Your task to perform on an android device: turn smart compose on in the gmail app Image 0: 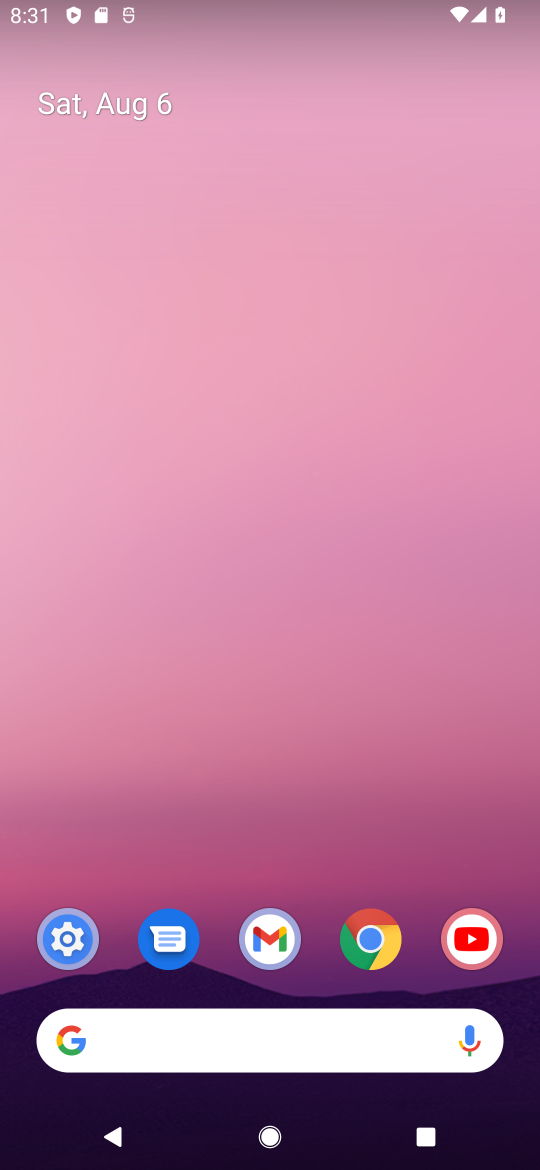
Step 0: drag from (282, 990) to (281, 320)
Your task to perform on an android device: turn smart compose on in the gmail app Image 1: 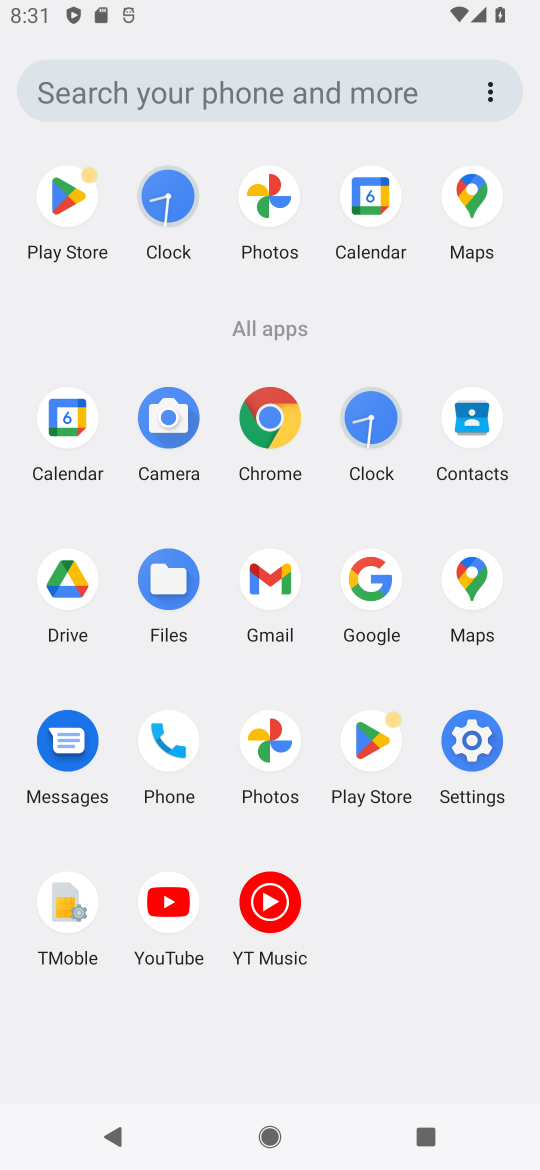
Step 1: click (278, 574)
Your task to perform on an android device: turn smart compose on in the gmail app Image 2: 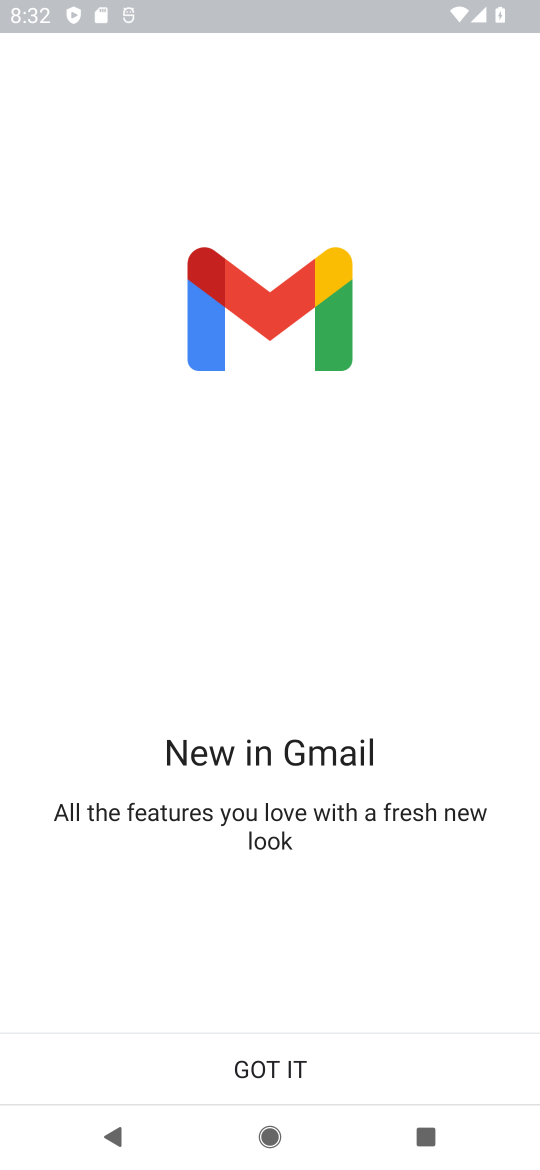
Step 2: click (301, 1067)
Your task to perform on an android device: turn smart compose on in the gmail app Image 3: 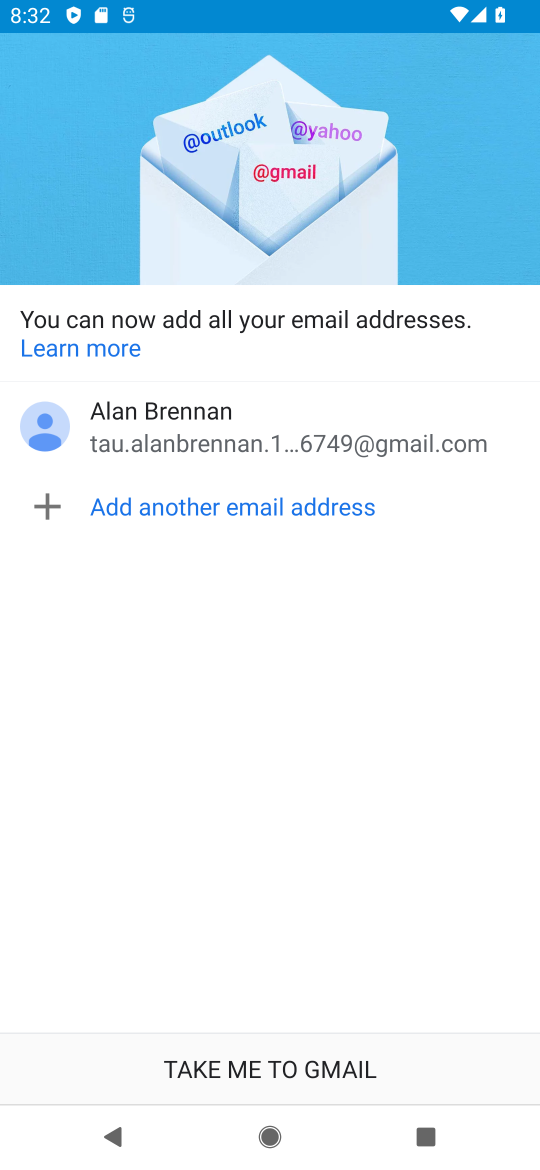
Step 3: click (225, 1064)
Your task to perform on an android device: turn smart compose on in the gmail app Image 4: 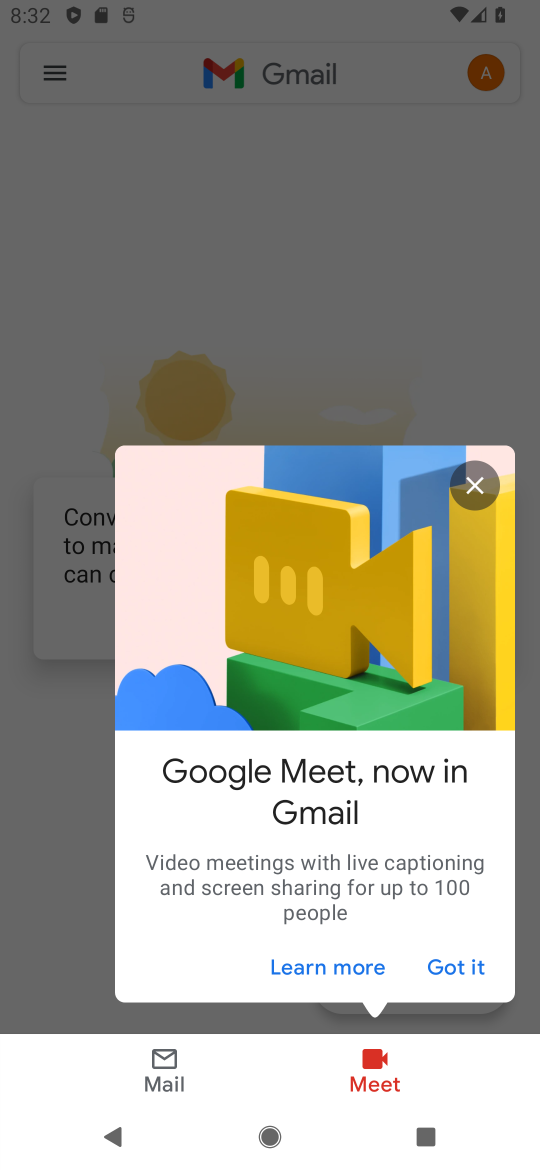
Step 4: click (447, 965)
Your task to perform on an android device: turn smart compose on in the gmail app Image 5: 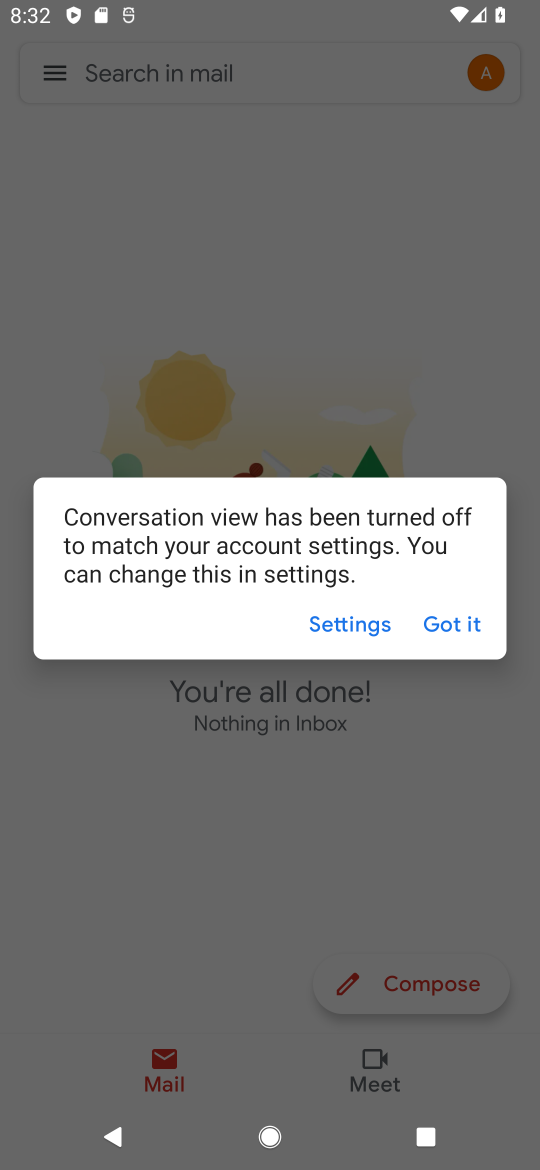
Step 5: click (461, 615)
Your task to perform on an android device: turn smart compose on in the gmail app Image 6: 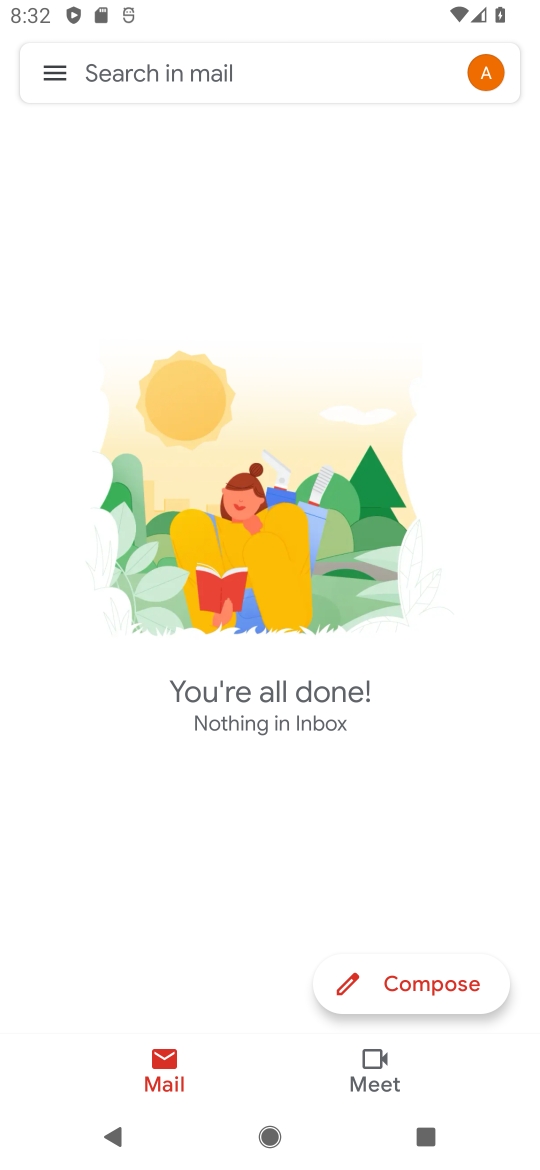
Step 6: click (30, 76)
Your task to perform on an android device: turn smart compose on in the gmail app Image 7: 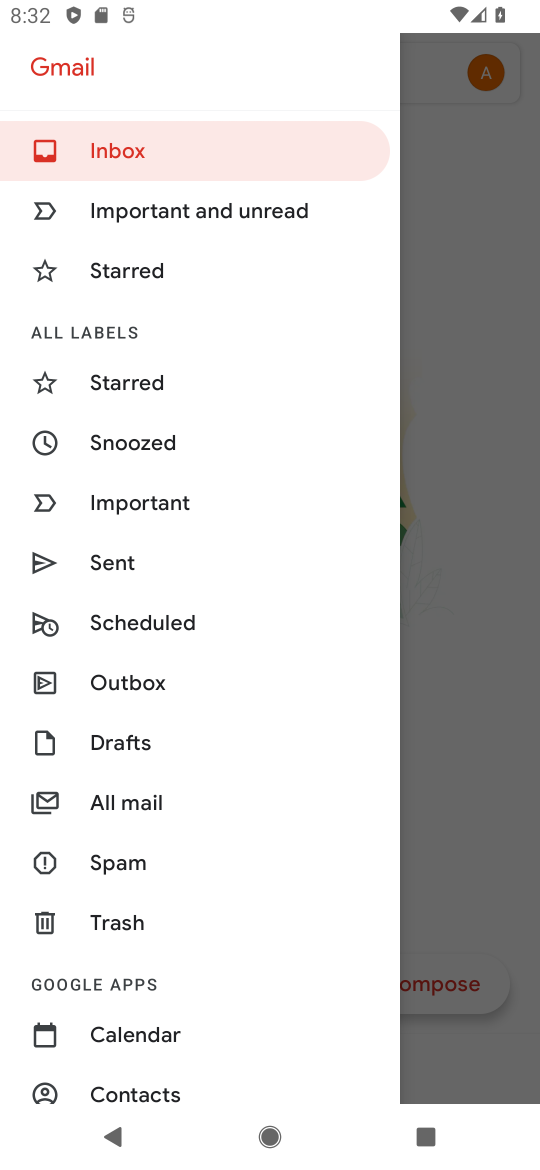
Step 7: drag from (120, 957) to (163, 415)
Your task to perform on an android device: turn smart compose on in the gmail app Image 8: 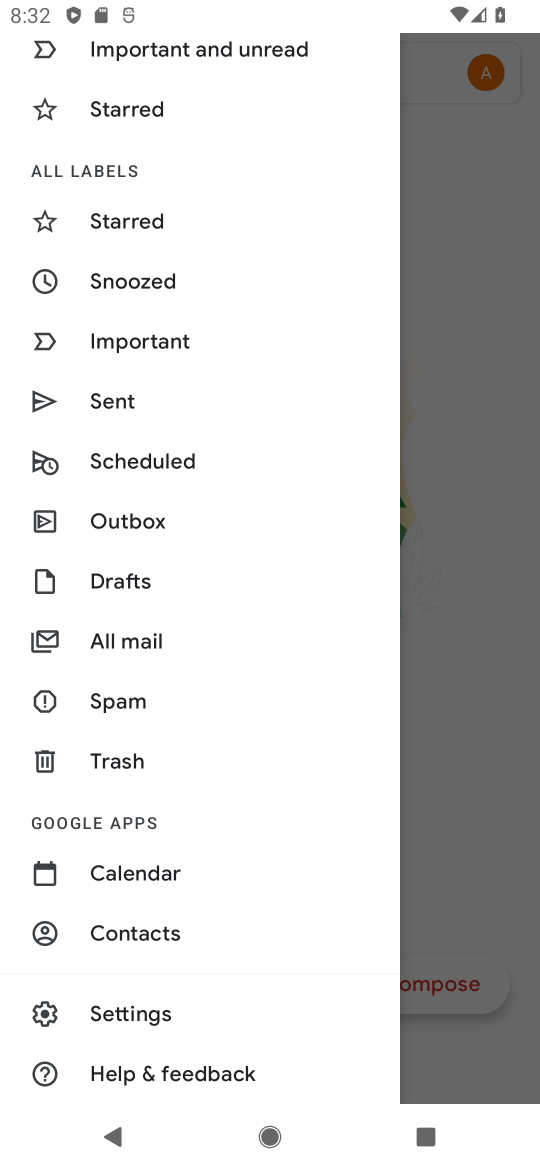
Step 8: click (154, 1024)
Your task to perform on an android device: turn smart compose on in the gmail app Image 9: 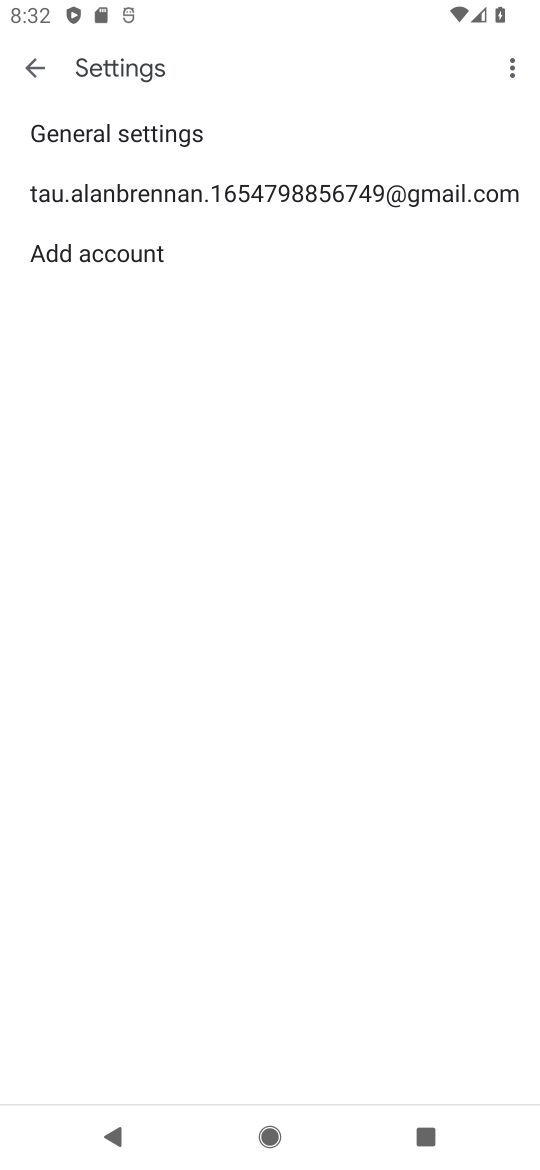
Step 9: click (102, 185)
Your task to perform on an android device: turn smart compose on in the gmail app Image 10: 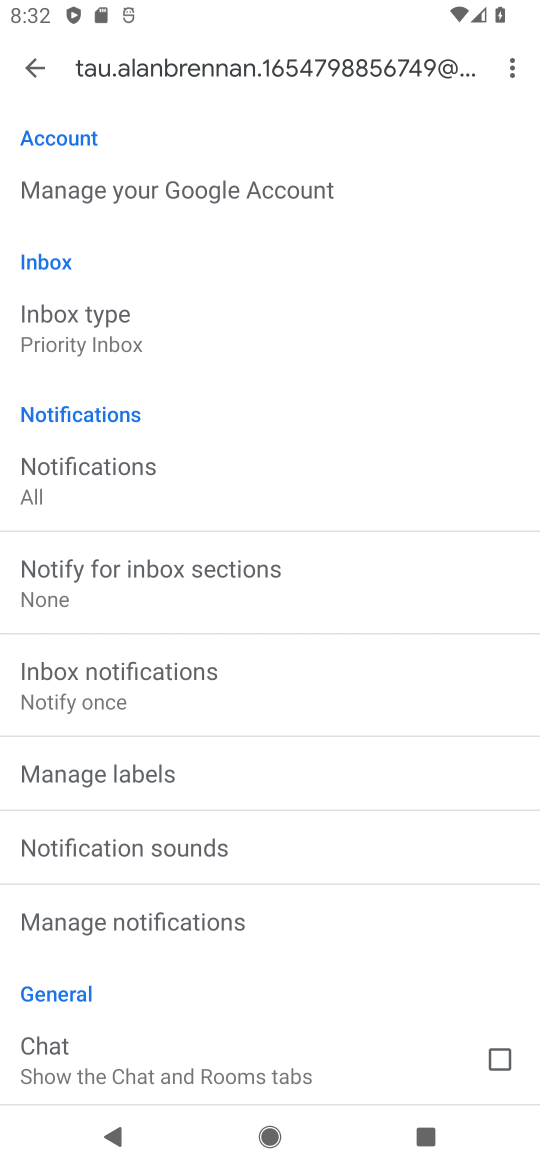
Step 10: task complete